Your task to perform on an android device: toggle pop-ups in chrome Image 0: 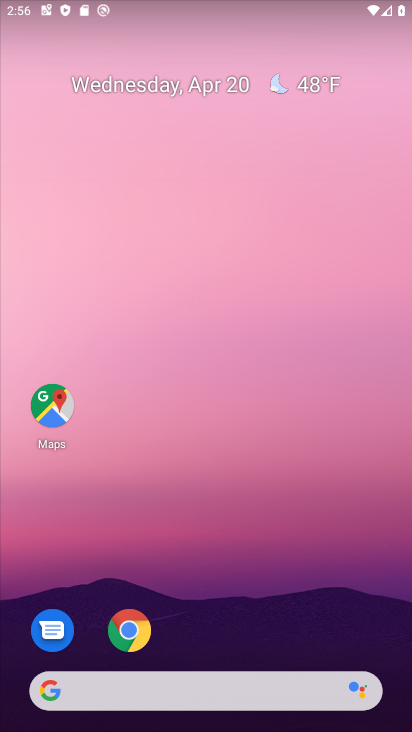
Step 0: click (115, 627)
Your task to perform on an android device: toggle pop-ups in chrome Image 1: 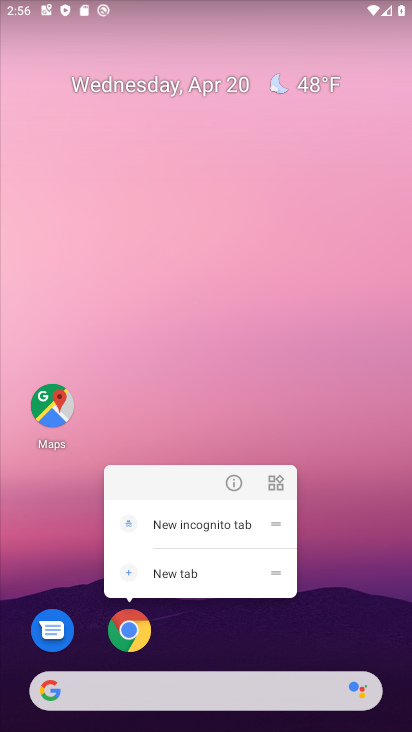
Step 1: click (115, 627)
Your task to perform on an android device: toggle pop-ups in chrome Image 2: 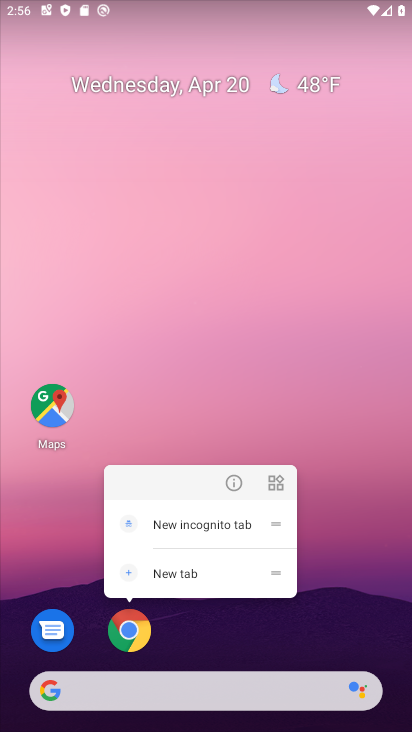
Step 2: click (114, 627)
Your task to perform on an android device: toggle pop-ups in chrome Image 3: 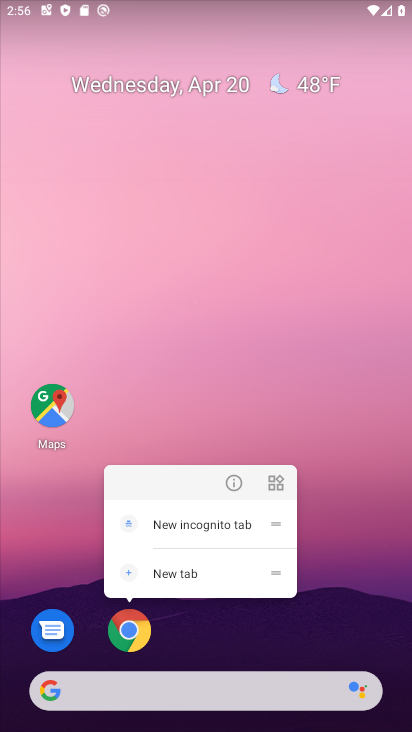
Step 3: click (114, 627)
Your task to perform on an android device: toggle pop-ups in chrome Image 4: 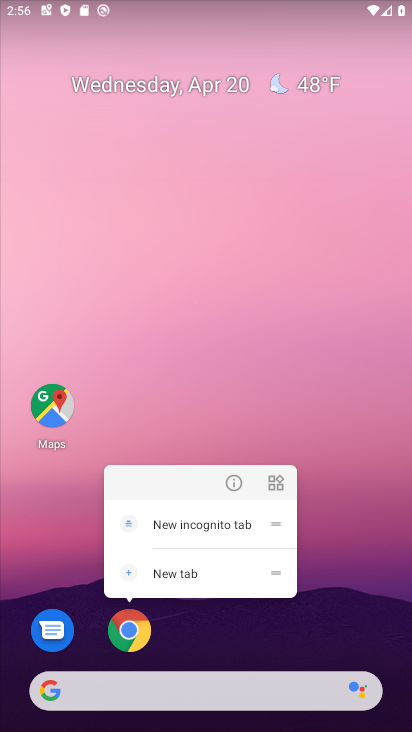
Step 4: click (122, 643)
Your task to perform on an android device: toggle pop-ups in chrome Image 5: 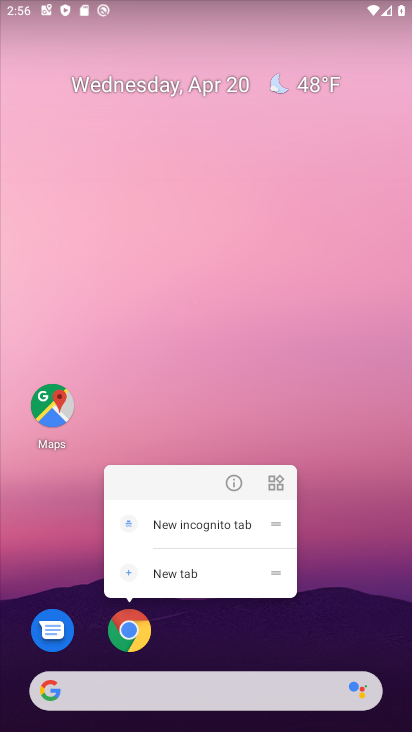
Step 5: click (123, 637)
Your task to perform on an android device: toggle pop-ups in chrome Image 6: 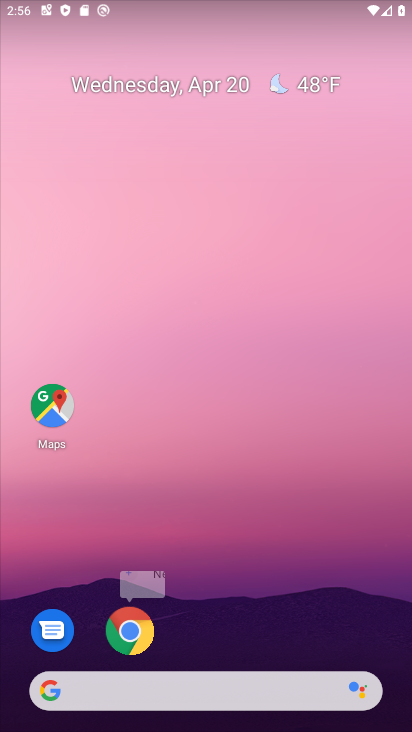
Step 6: click (123, 637)
Your task to perform on an android device: toggle pop-ups in chrome Image 7: 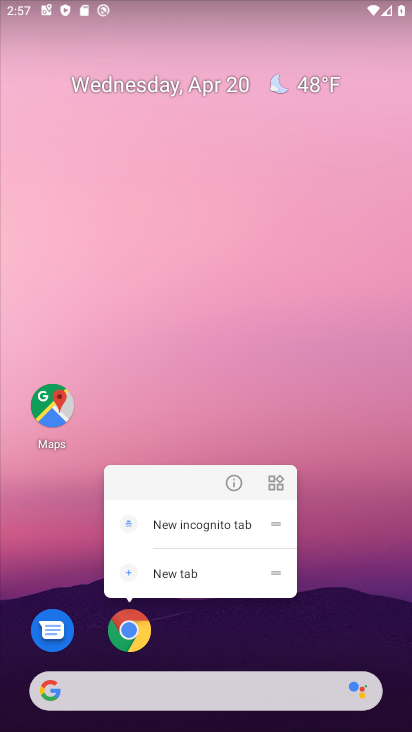
Step 7: click (134, 625)
Your task to perform on an android device: toggle pop-ups in chrome Image 8: 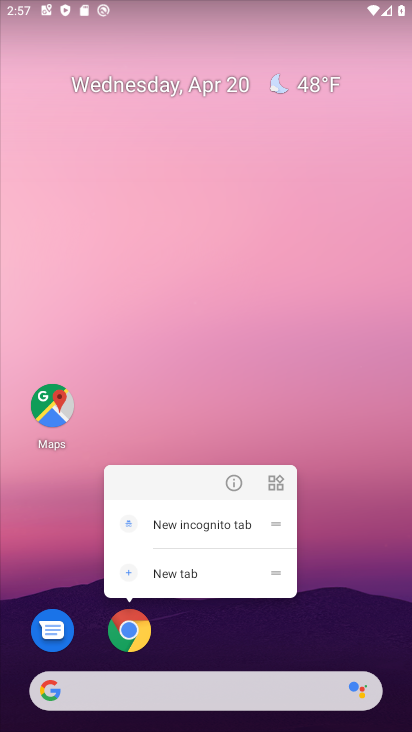
Step 8: click (132, 632)
Your task to perform on an android device: toggle pop-ups in chrome Image 9: 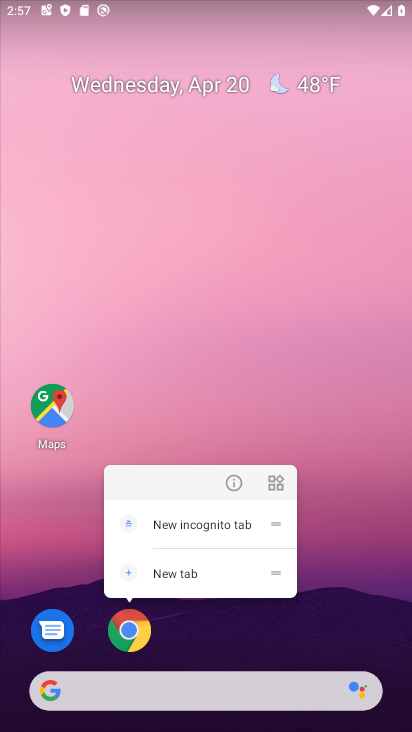
Step 9: click (132, 632)
Your task to perform on an android device: toggle pop-ups in chrome Image 10: 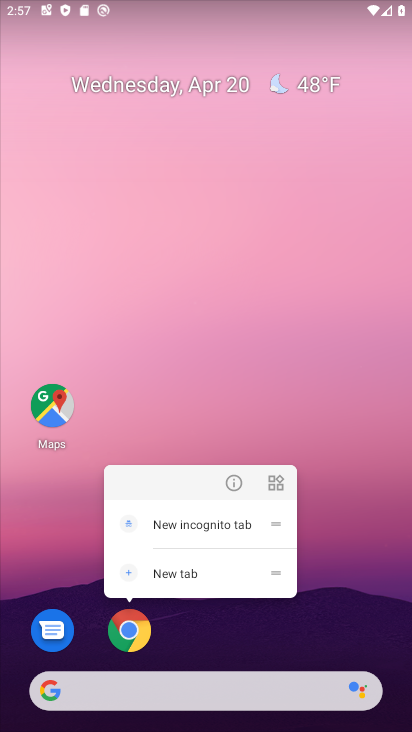
Step 10: click (132, 632)
Your task to perform on an android device: toggle pop-ups in chrome Image 11: 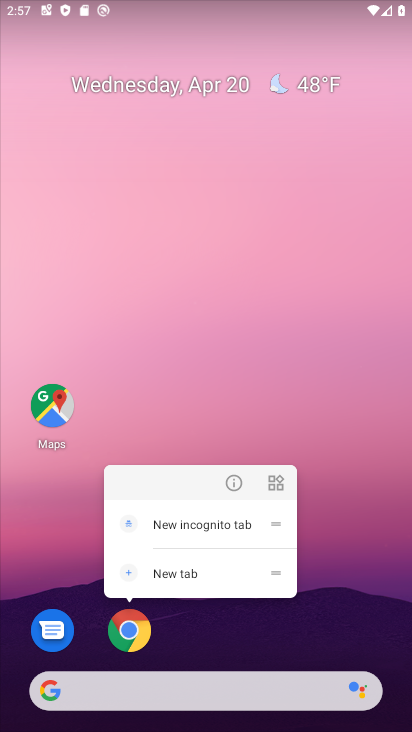
Step 11: click (132, 632)
Your task to perform on an android device: toggle pop-ups in chrome Image 12: 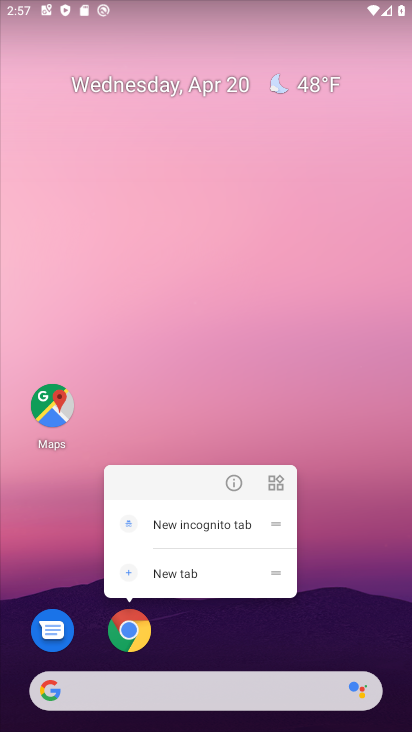
Step 12: click (132, 632)
Your task to perform on an android device: toggle pop-ups in chrome Image 13: 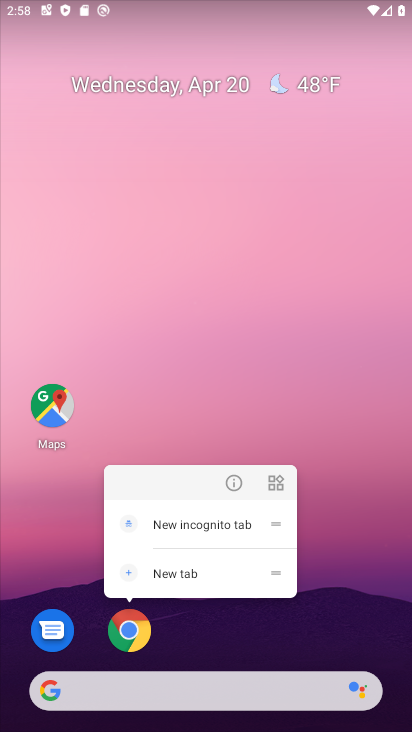
Step 13: click (54, 643)
Your task to perform on an android device: toggle pop-ups in chrome Image 14: 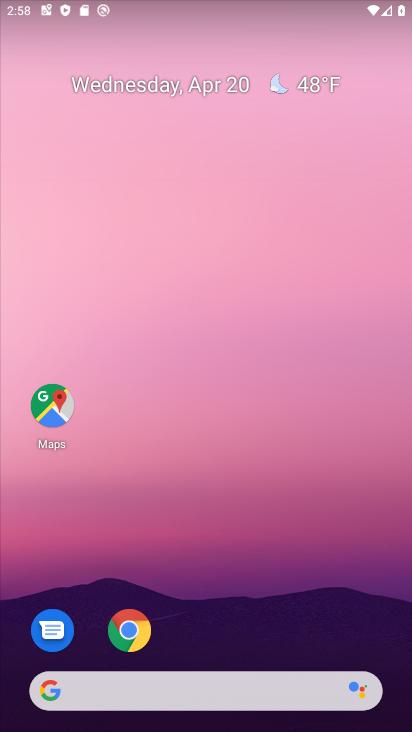
Step 14: press home button
Your task to perform on an android device: toggle pop-ups in chrome Image 15: 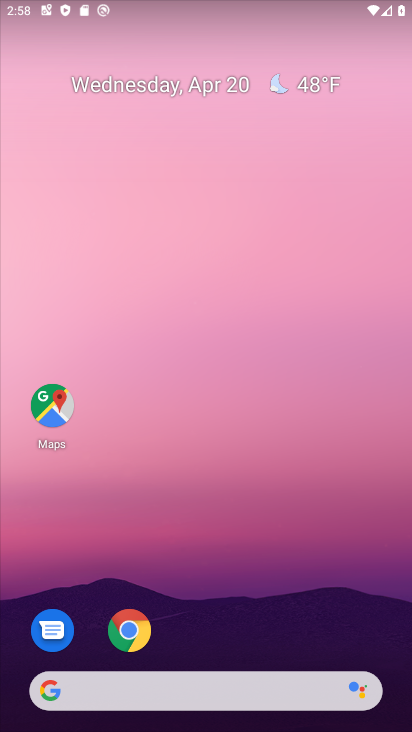
Step 15: drag from (197, 726) to (231, 83)
Your task to perform on an android device: toggle pop-ups in chrome Image 16: 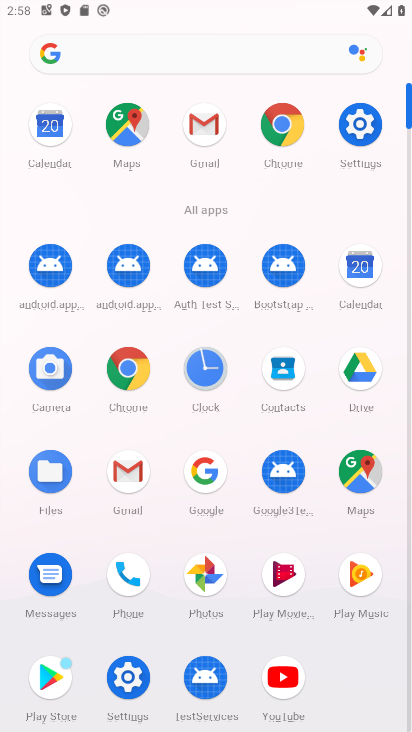
Step 16: click (279, 125)
Your task to perform on an android device: toggle pop-ups in chrome Image 17: 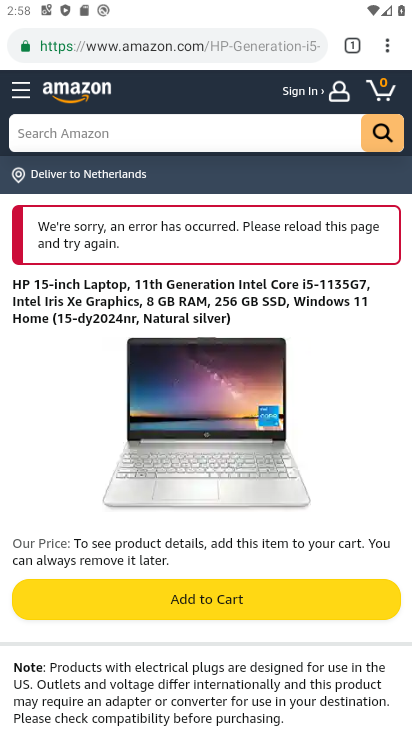
Step 17: click (382, 44)
Your task to perform on an android device: toggle pop-ups in chrome Image 18: 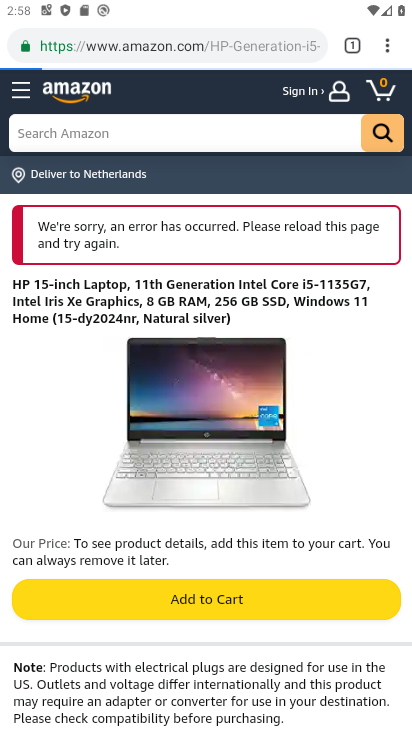
Step 18: click (230, 595)
Your task to perform on an android device: toggle pop-ups in chrome Image 19: 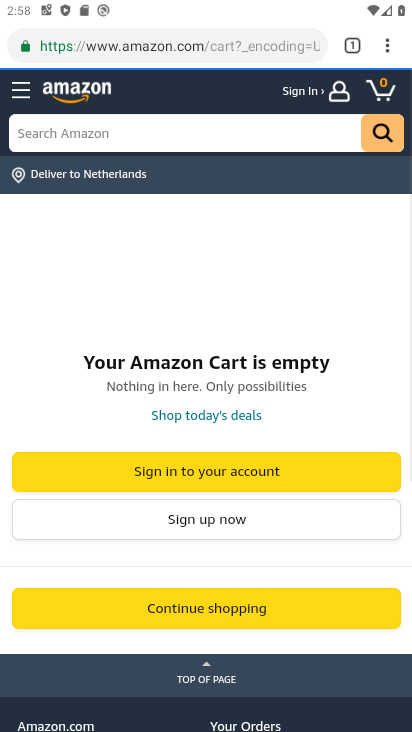
Step 19: click (387, 50)
Your task to perform on an android device: toggle pop-ups in chrome Image 20: 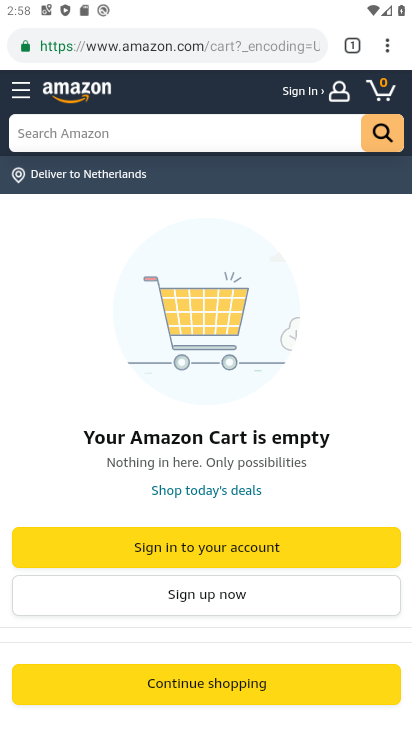
Step 20: click (234, 605)
Your task to perform on an android device: toggle pop-ups in chrome Image 21: 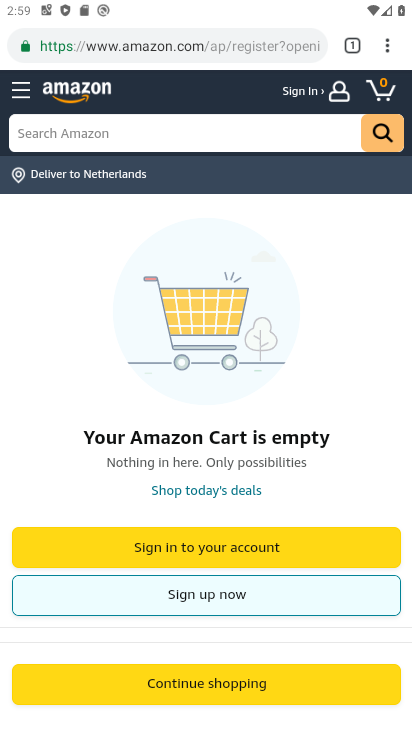
Step 21: click (391, 45)
Your task to perform on an android device: toggle pop-ups in chrome Image 22: 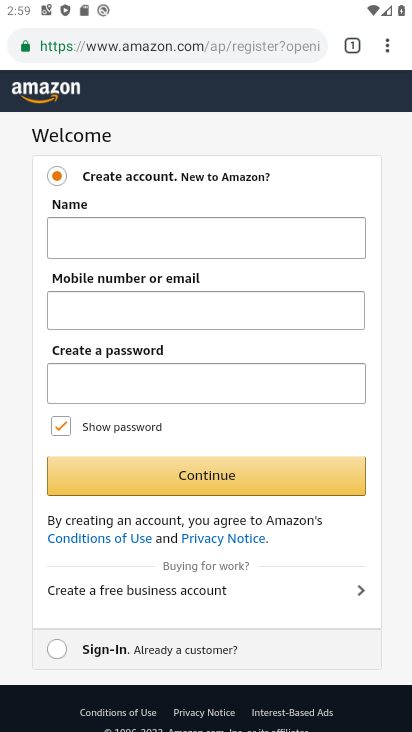
Step 22: click (392, 46)
Your task to perform on an android device: toggle pop-ups in chrome Image 23: 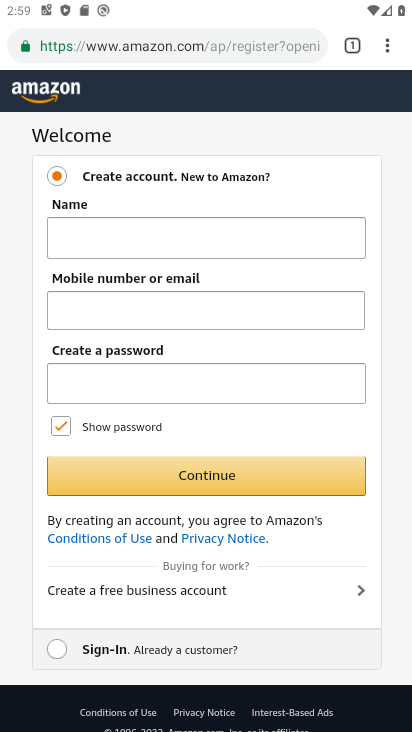
Step 23: click (385, 40)
Your task to perform on an android device: toggle pop-ups in chrome Image 24: 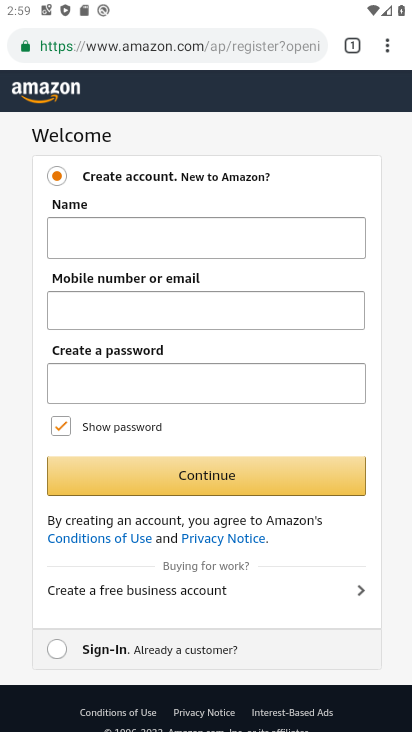
Step 24: click (375, 46)
Your task to perform on an android device: toggle pop-ups in chrome Image 25: 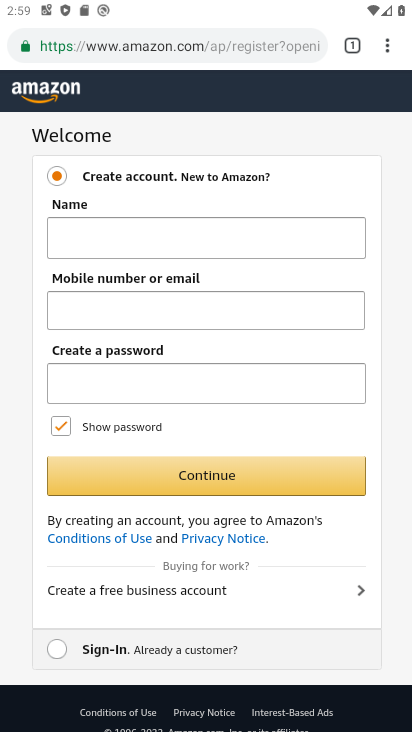
Step 25: click (386, 50)
Your task to perform on an android device: toggle pop-ups in chrome Image 26: 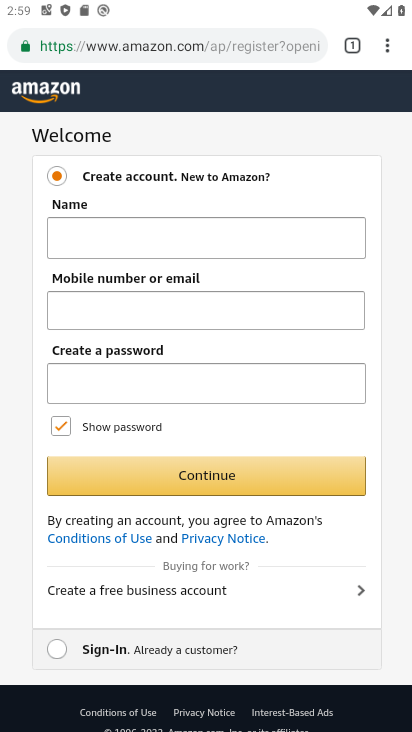
Step 26: drag from (388, 46) to (302, 601)
Your task to perform on an android device: toggle pop-ups in chrome Image 27: 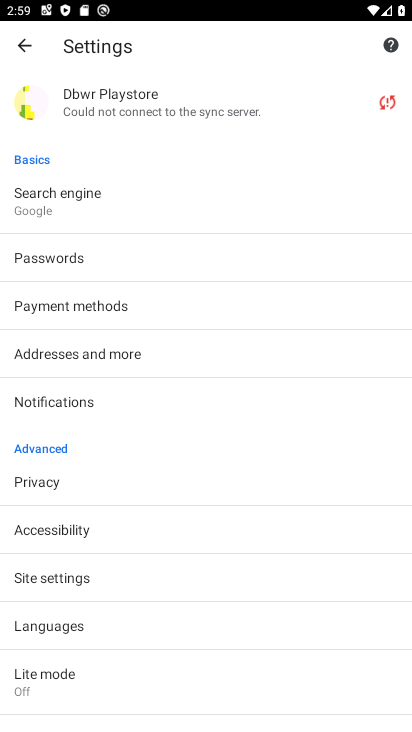
Step 27: click (99, 581)
Your task to perform on an android device: toggle pop-ups in chrome Image 28: 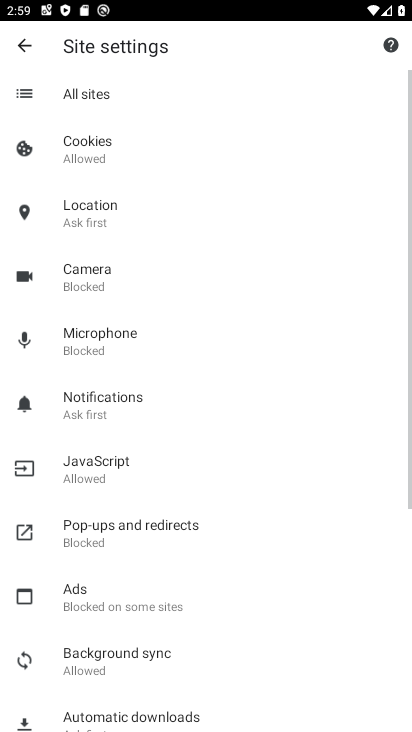
Step 28: click (181, 533)
Your task to perform on an android device: toggle pop-ups in chrome Image 29: 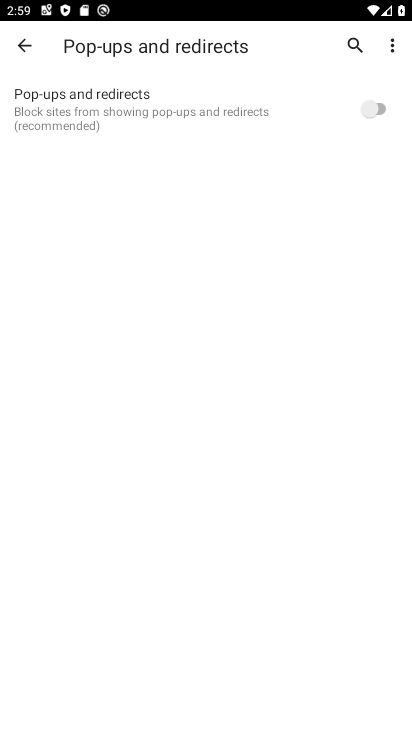
Step 29: click (384, 100)
Your task to perform on an android device: toggle pop-ups in chrome Image 30: 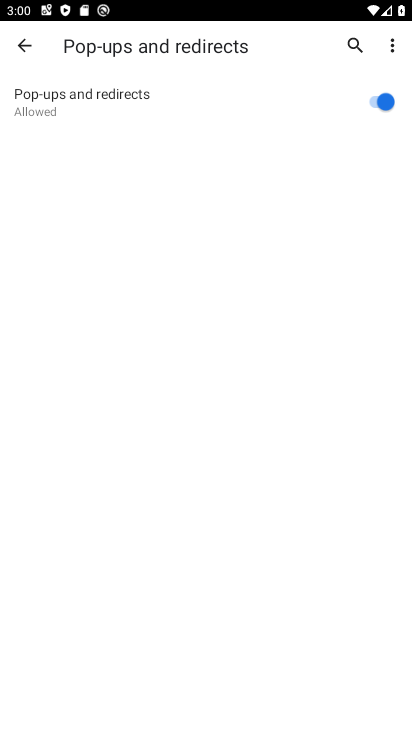
Step 30: task complete